Your task to perform on an android device: see creations saved in the google photos Image 0: 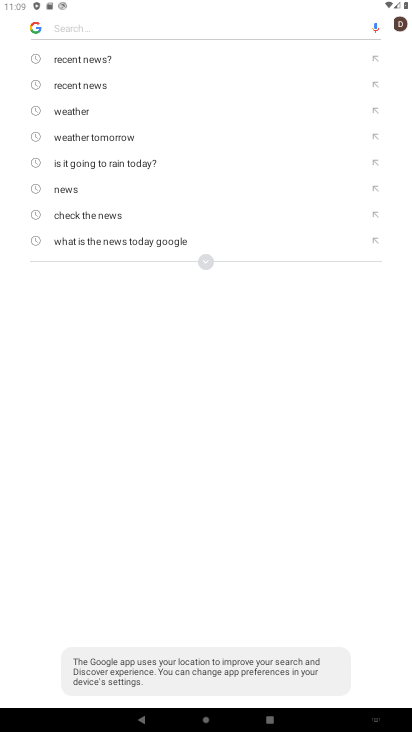
Step 0: press back button
Your task to perform on an android device: see creations saved in the google photos Image 1: 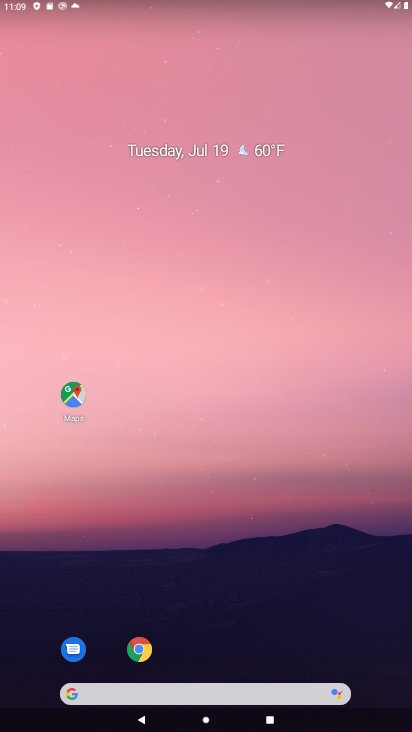
Step 1: drag from (196, 694) to (179, 217)
Your task to perform on an android device: see creations saved in the google photos Image 2: 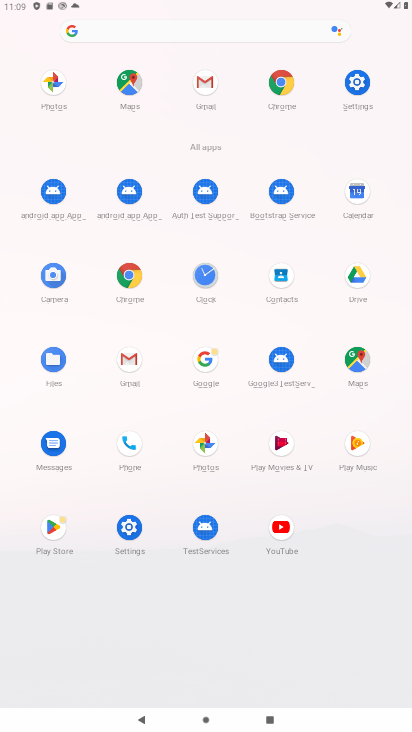
Step 2: click (215, 452)
Your task to perform on an android device: see creations saved in the google photos Image 3: 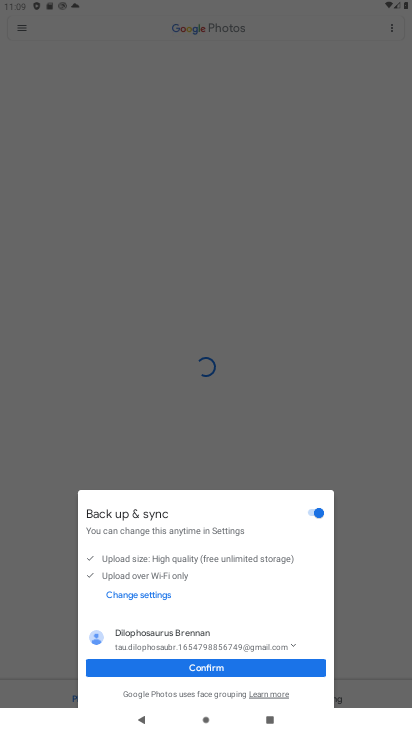
Step 3: click (209, 668)
Your task to perform on an android device: see creations saved in the google photos Image 4: 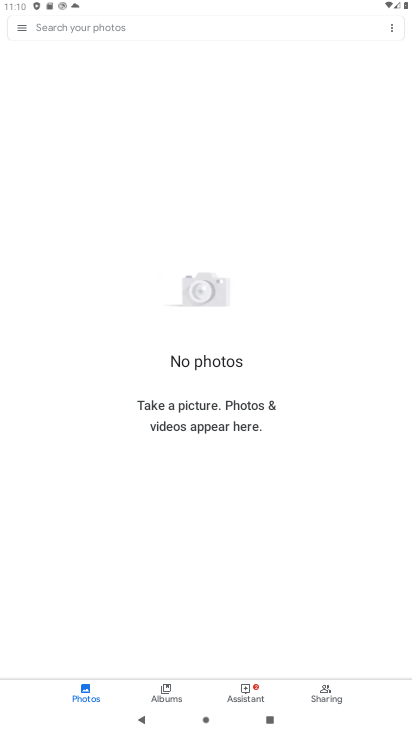
Step 4: click (242, 694)
Your task to perform on an android device: see creations saved in the google photos Image 5: 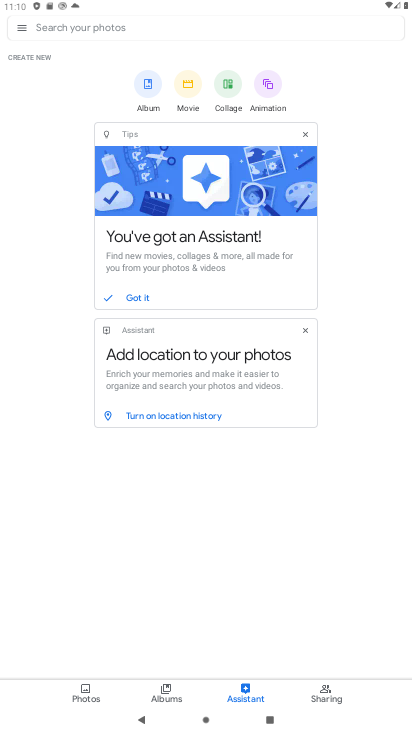
Step 5: task complete